Your task to perform on an android device: turn on translation in the chrome app Image 0: 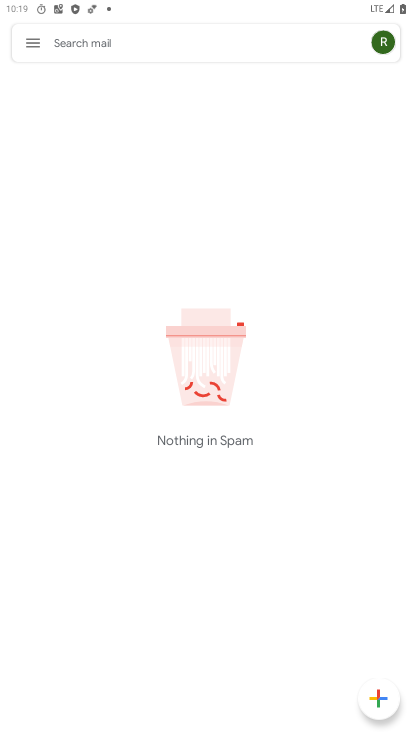
Step 0: press home button
Your task to perform on an android device: turn on translation in the chrome app Image 1: 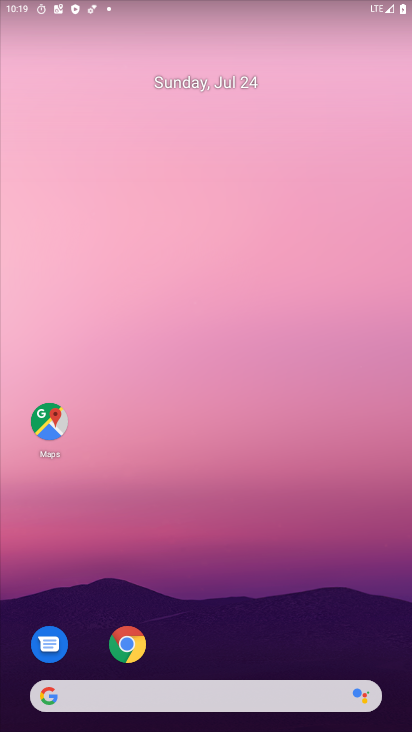
Step 1: drag from (219, 681) to (287, 264)
Your task to perform on an android device: turn on translation in the chrome app Image 2: 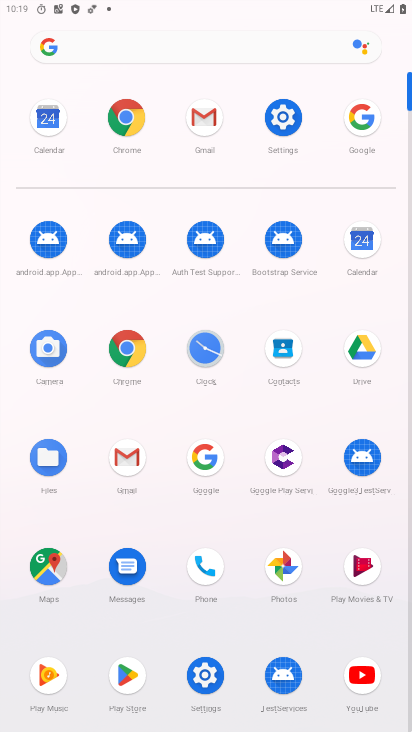
Step 2: click (127, 347)
Your task to perform on an android device: turn on translation in the chrome app Image 3: 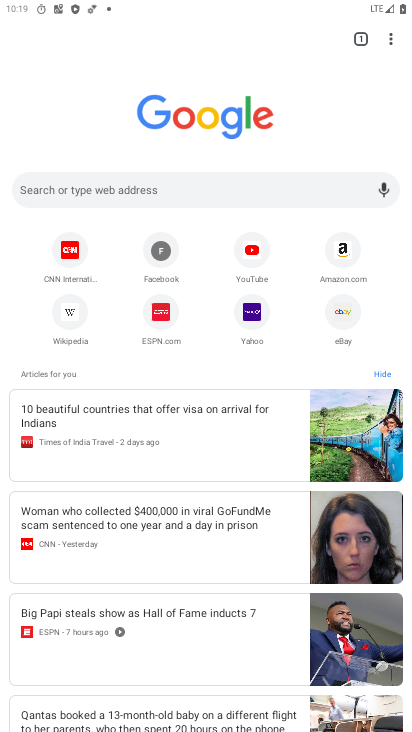
Step 3: click (394, 34)
Your task to perform on an android device: turn on translation in the chrome app Image 4: 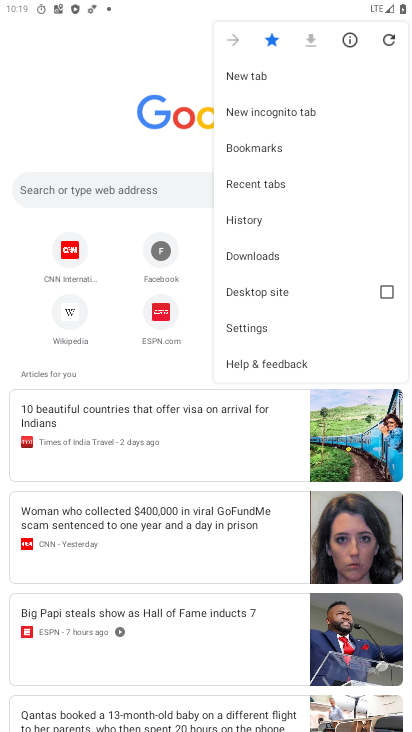
Step 4: click (265, 330)
Your task to perform on an android device: turn on translation in the chrome app Image 5: 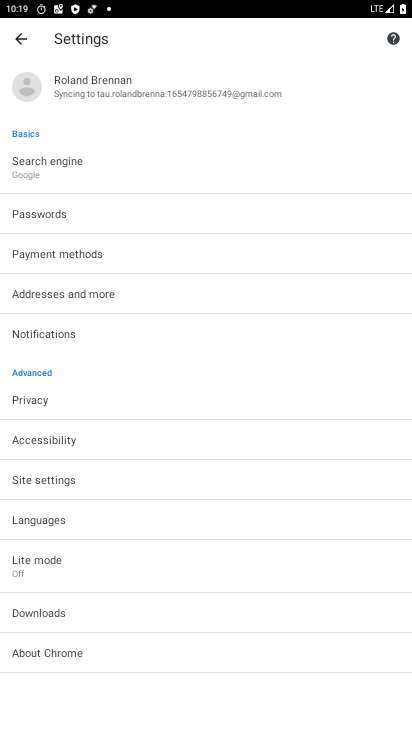
Step 5: click (47, 518)
Your task to perform on an android device: turn on translation in the chrome app Image 6: 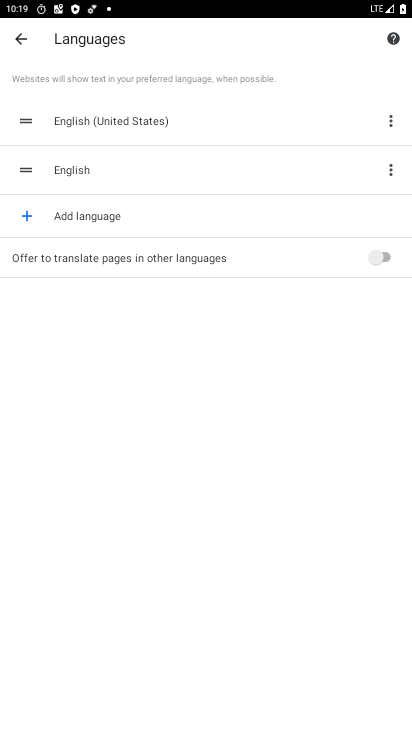
Step 6: click (40, 521)
Your task to perform on an android device: turn on translation in the chrome app Image 7: 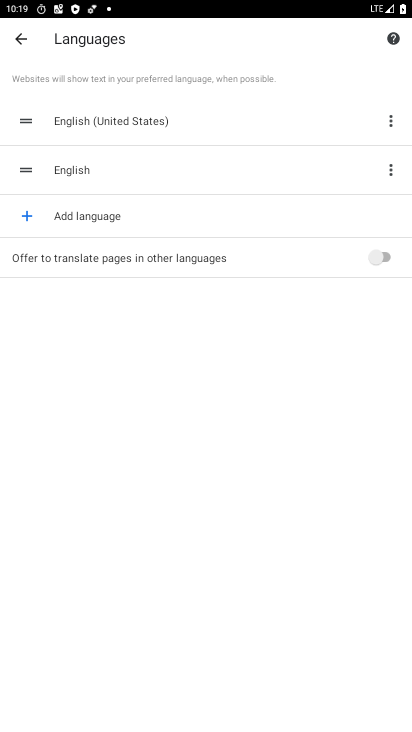
Step 7: click (383, 254)
Your task to perform on an android device: turn on translation in the chrome app Image 8: 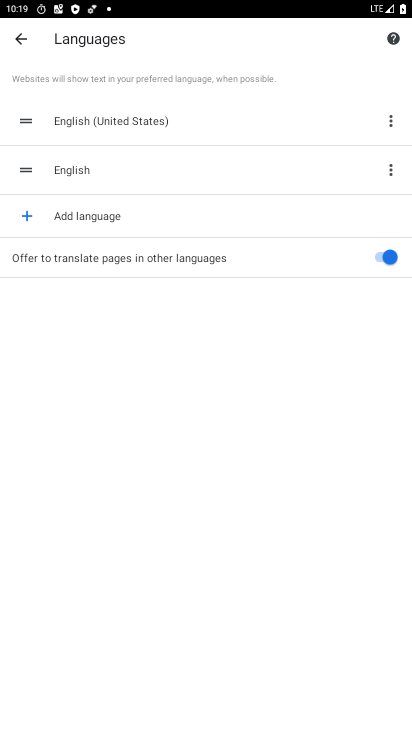
Step 8: task complete